Your task to perform on an android device: Open CNN.com Image 0: 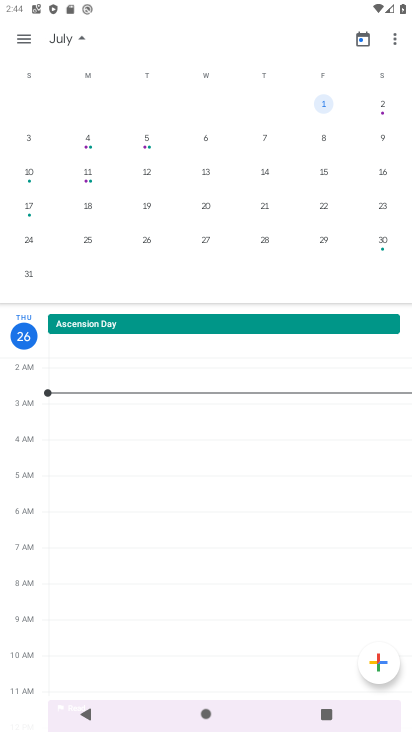
Step 0: press home button
Your task to perform on an android device: Open CNN.com Image 1: 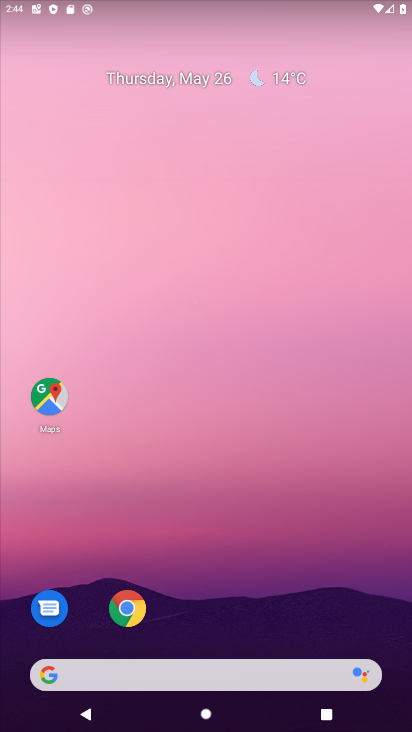
Step 1: click (131, 611)
Your task to perform on an android device: Open CNN.com Image 2: 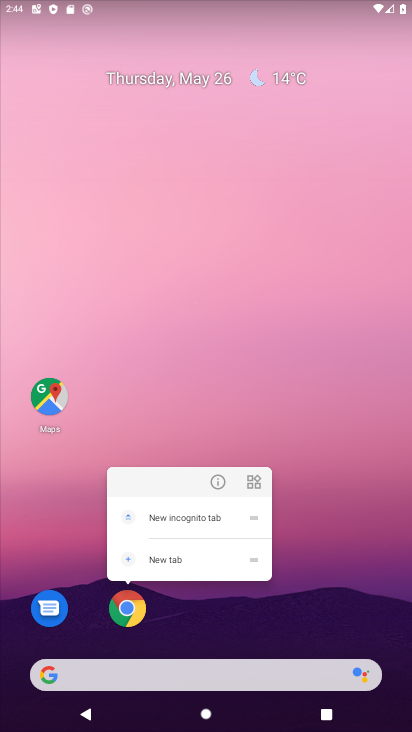
Step 2: click (130, 610)
Your task to perform on an android device: Open CNN.com Image 3: 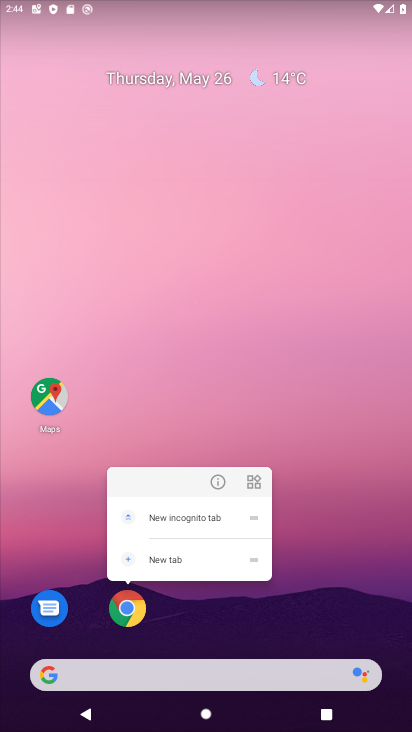
Step 3: click (130, 609)
Your task to perform on an android device: Open CNN.com Image 4: 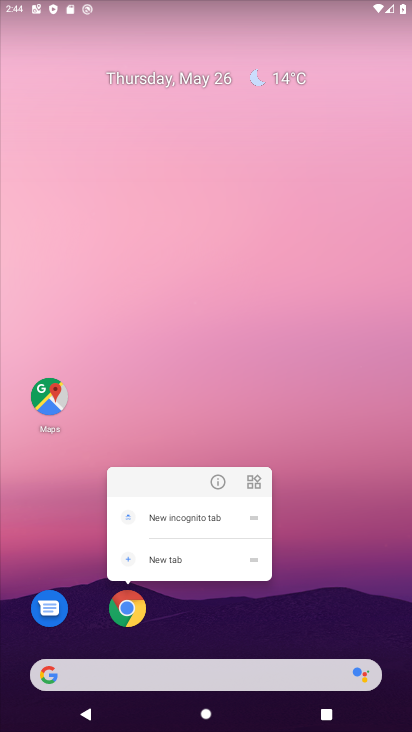
Step 4: click (130, 608)
Your task to perform on an android device: Open CNN.com Image 5: 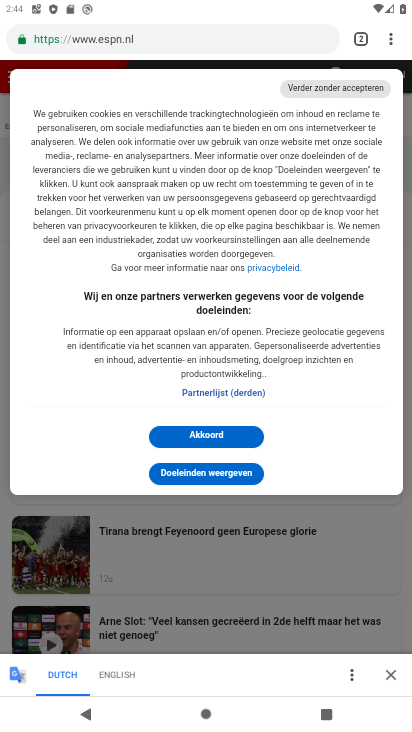
Step 5: click (196, 40)
Your task to perform on an android device: Open CNN.com Image 6: 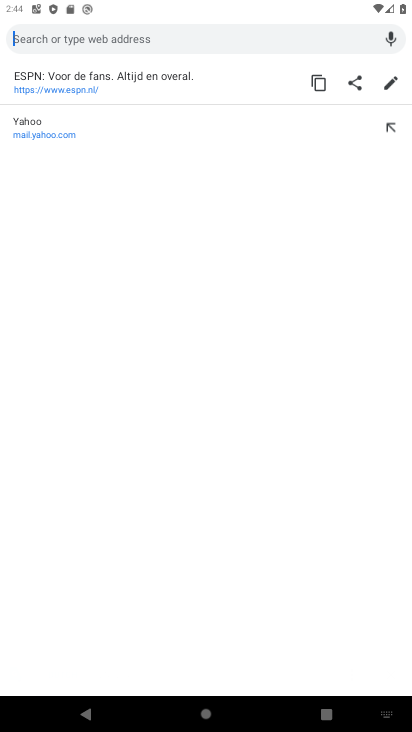
Step 6: type "cnn"
Your task to perform on an android device: Open CNN.com Image 7: 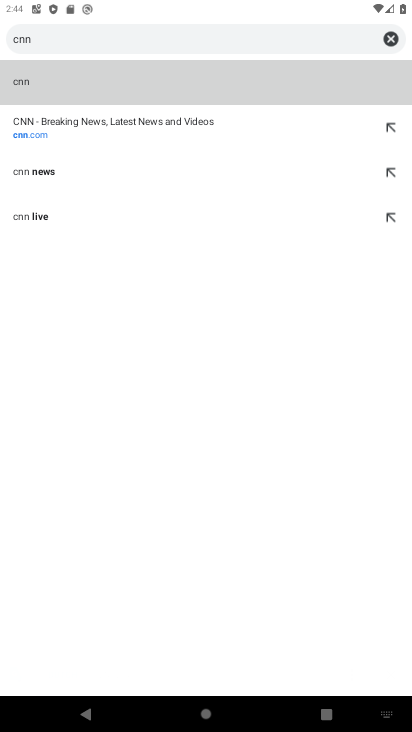
Step 7: click (17, 128)
Your task to perform on an android device: Open CNN.com Image 8: 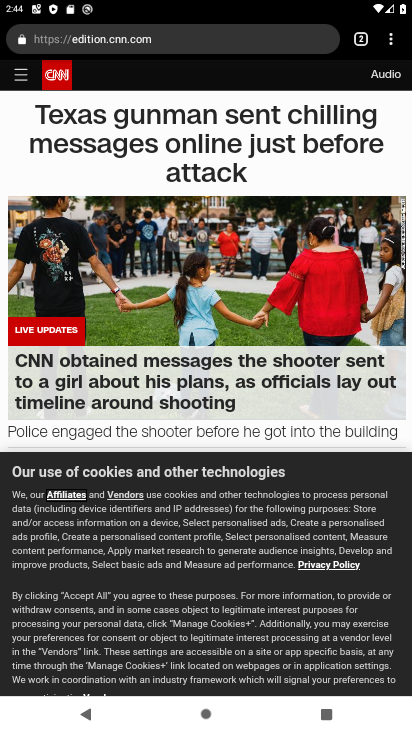
Step 8: task complete